Your task to perform on an android device: Open Google Chrome and open the bookmarks view Image 0: 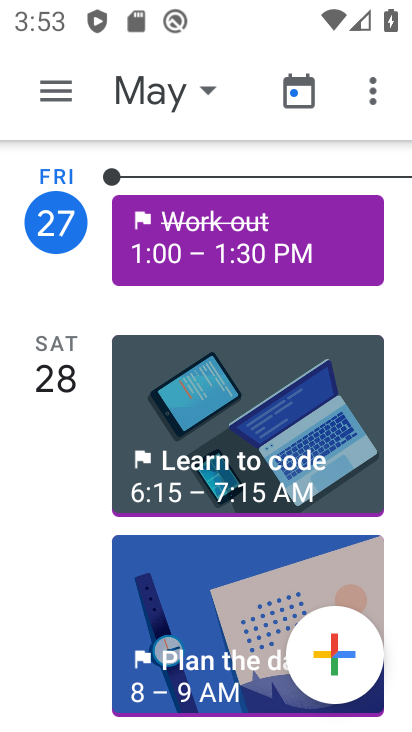
Step 0: press home button
Your task to perform on an android device: Open Google Chrome and open the bookmarks view Image 1: 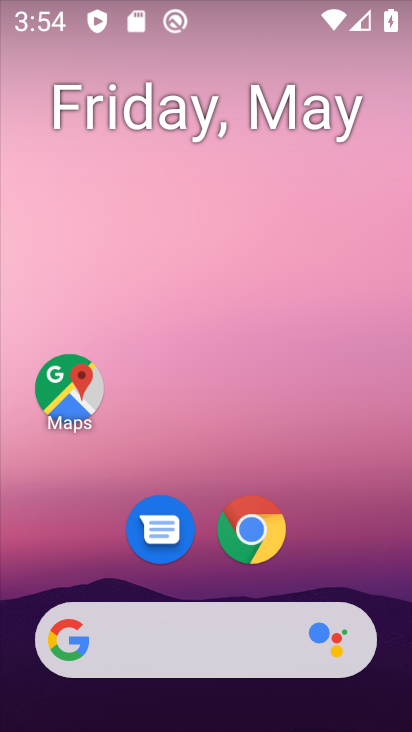
Step 1: drag from (204, 604) to (310, 286)
Your task to perform on an android device: Open Google Chrome and open the bookmarks view Image 2: 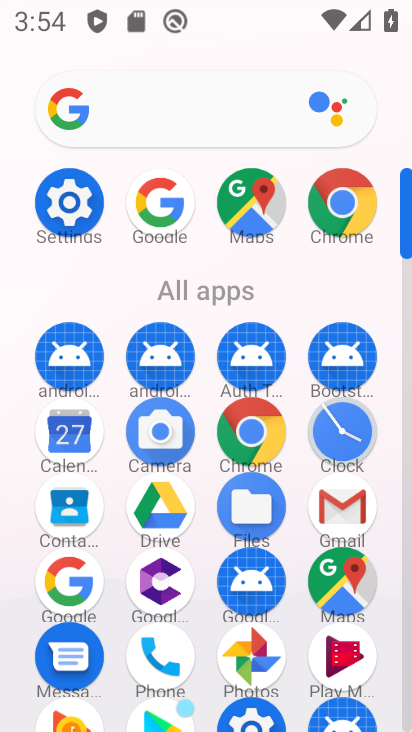
Step 2: click (352, 222)
Your task to perform on an android device: Open Google Chrome and open the bookmarks view Image 3: 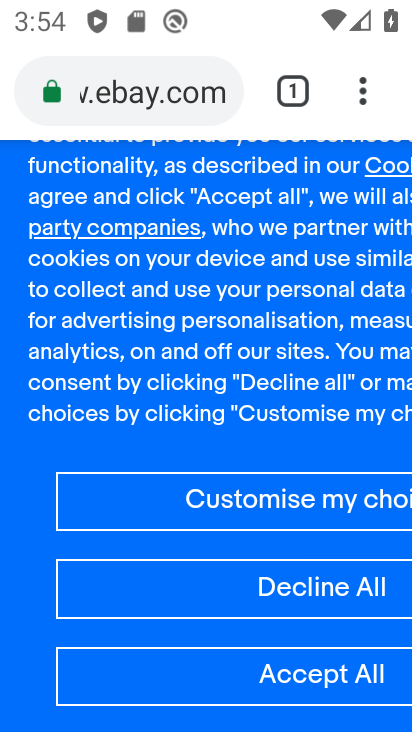
Step 3: click (361, 98)
Your task to perform on an android device: Open Google Chrome and open the bookmarks view Image 4: 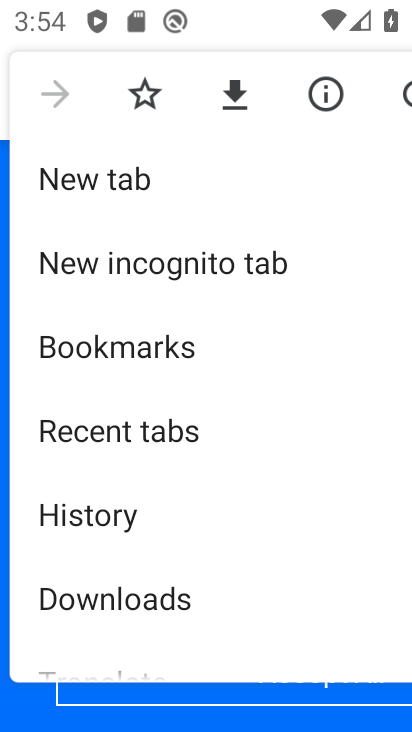
Step 4: click (176, 336)
Your task to perform on an android device: Open Google Chrome and open the bookmarks view Image 5: 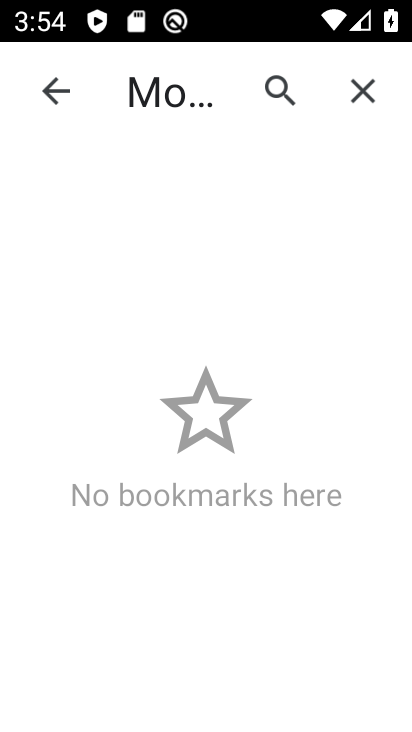
Step 5: task complete